Your task to perform on an android device: Open ESPN.com Image 0: 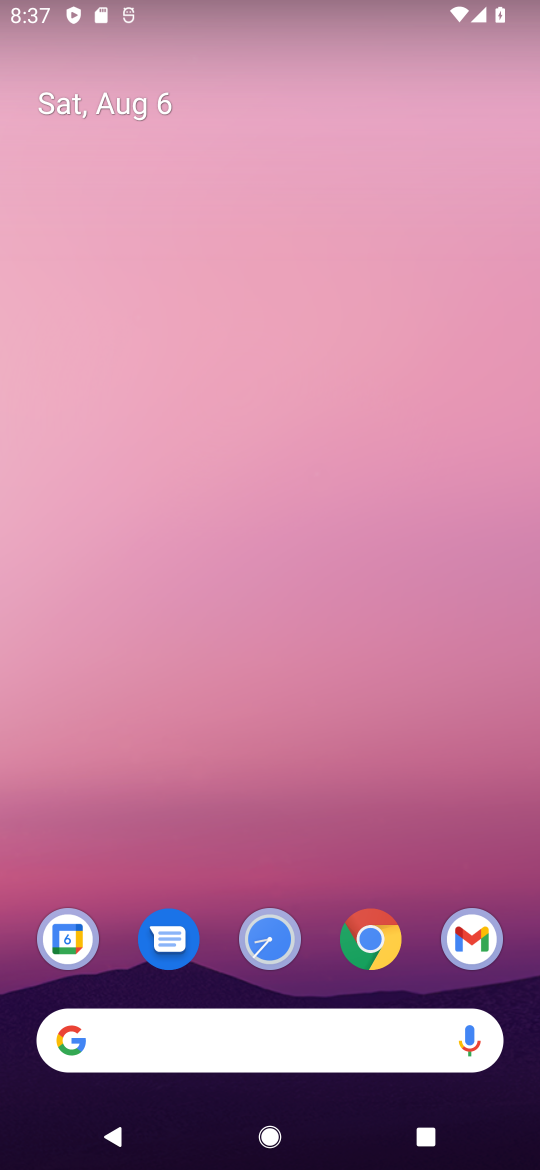
Step 0: drag from (221, 985) to (254, 140)
Your task to perform on an android device: Open ESPN.com Image 1: 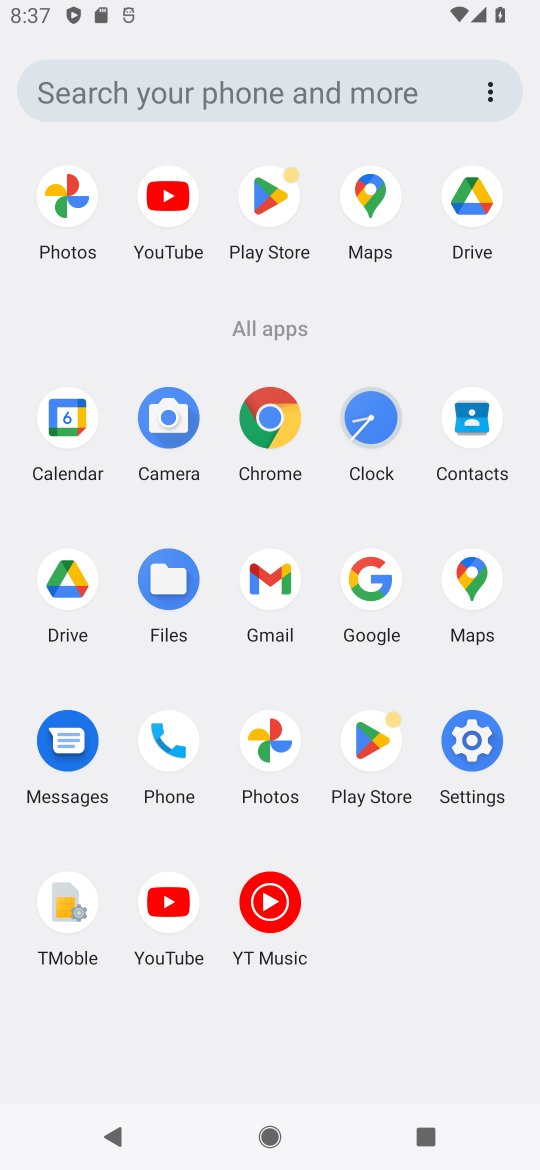
Step 1: click (280, 416)
Your task to perform on an android device: Open ESPN.com Image 2: 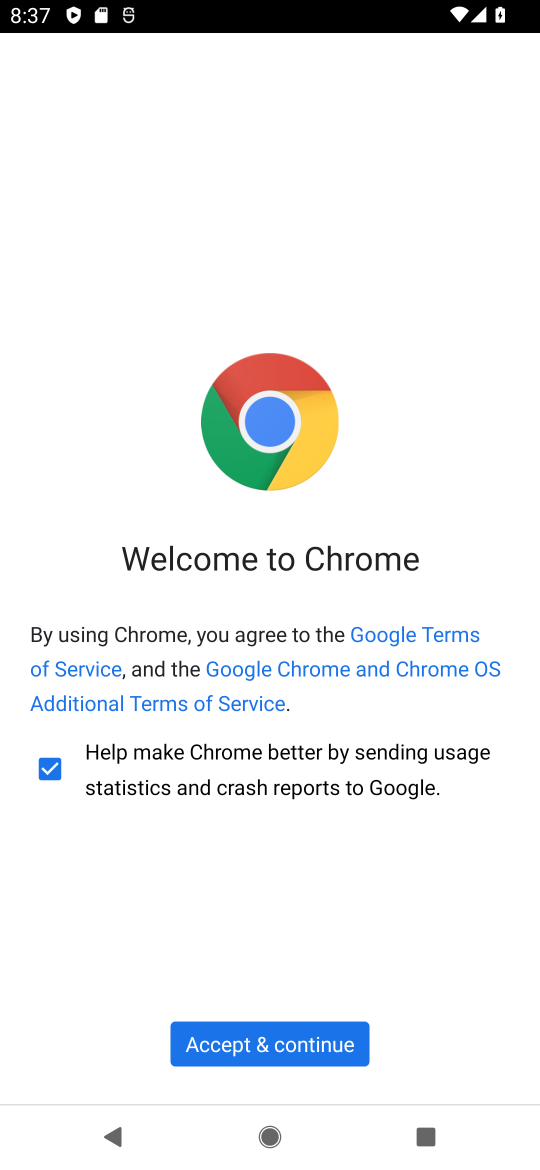
Step 2: click (313, 1051)
Your task to perform on an android device: Open ESPN.com Image 3: 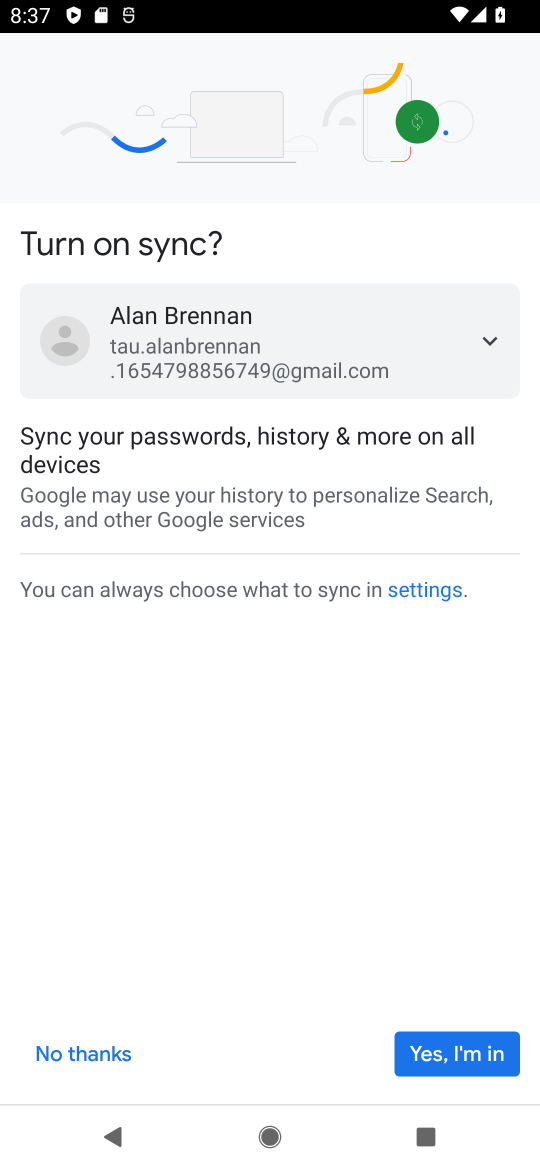
Step 3: click (424, 1047)
Your task to perform on an android device: Open ESPN.com Image 4: 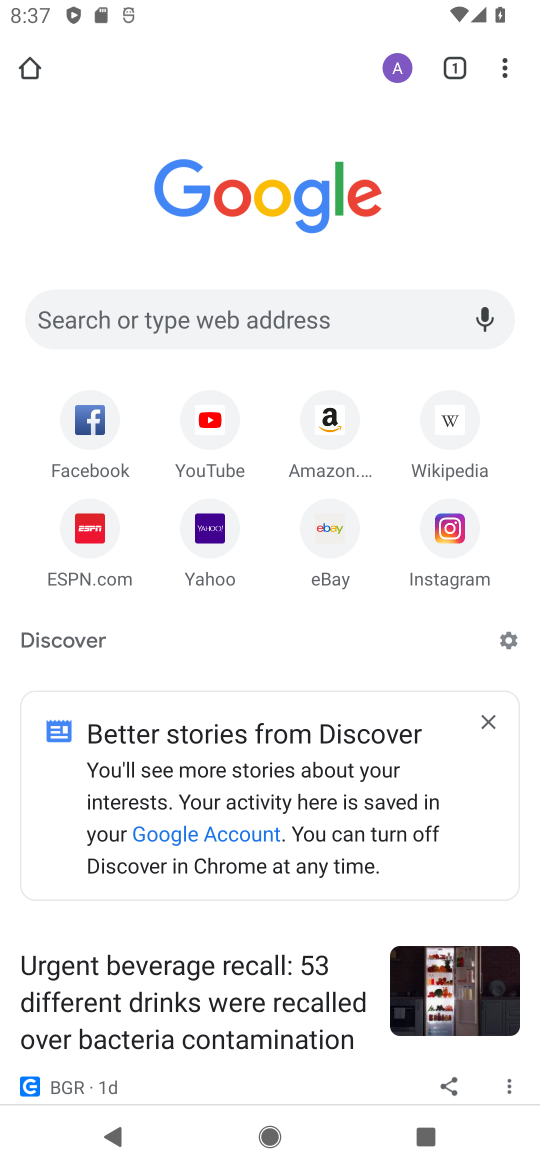
Step 4: click (87, 524)
Your task to perform on an android device: Open ESPN.com Image 5: 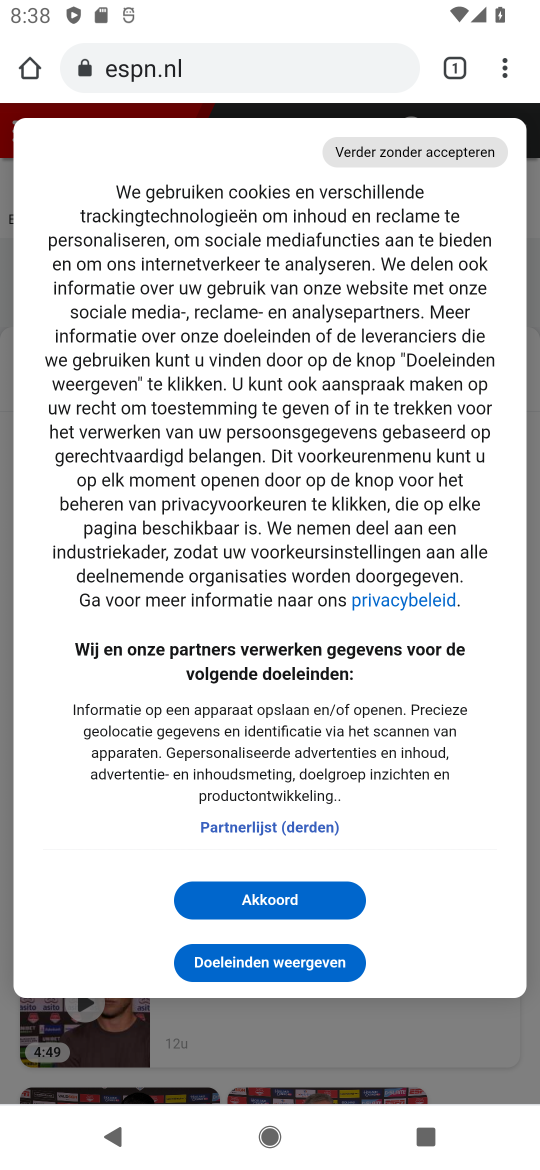
Step 5: click (280, 911)
Your task to perform on an android device: Open ESPN.com Image 6: 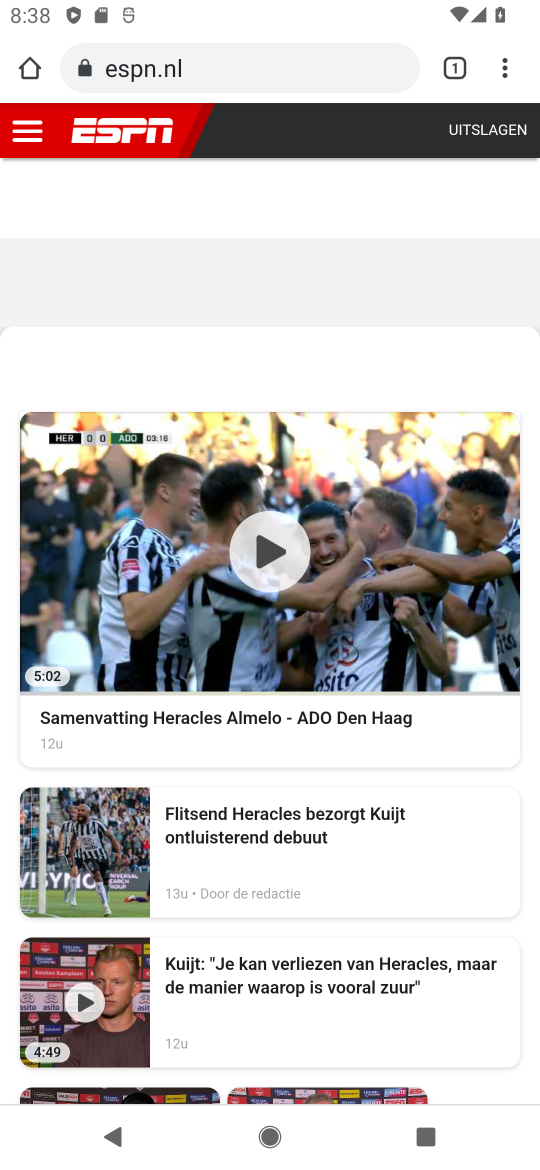
Step 6: task complete